Your task to perform on an android device: Open the calendar app, open the side menu, and click the "Day" option Image 0: 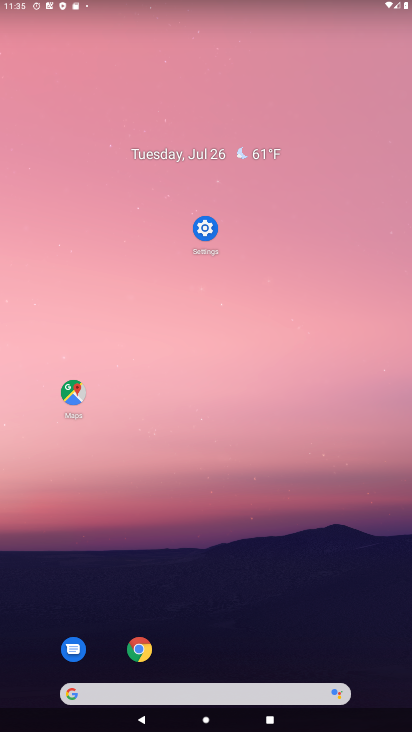
Step 0: drag from (248, 566) to (257, 49)
Your task to perform on an android device: Open the calendar app, open the side menu, and click the "Day" option Image 1: 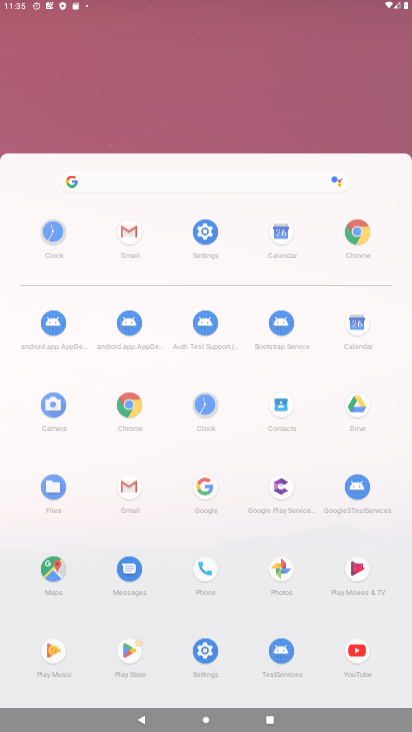
Step 1: drag from (275, 591) to (273, 116)
Your task to perform on an android device: Open the calendar app, open the side menu, and click the "Day" option Image 2: 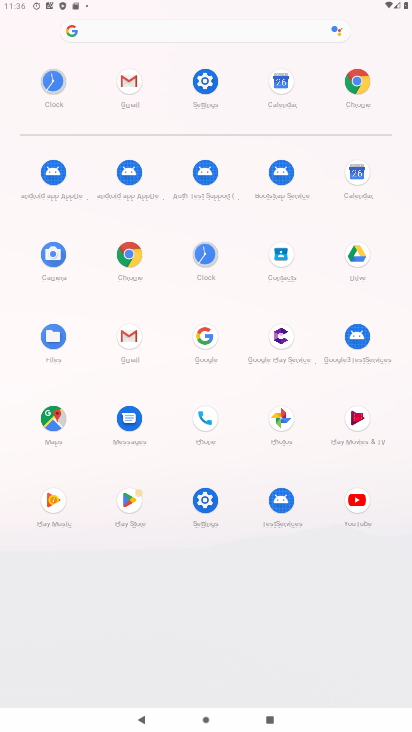
Step 2: click (356, 165)
Your task to perform on an android device: Open the calendar app, open the side menu, and click the "Day" option Image 3: 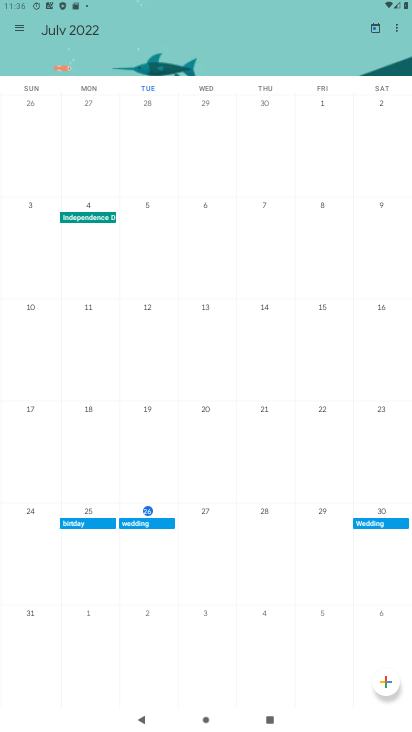
Step 3: click (21, 39)
Your task to perform on an android device: Open the calendar app, open the side menu, and click the "Day" option Image 4: 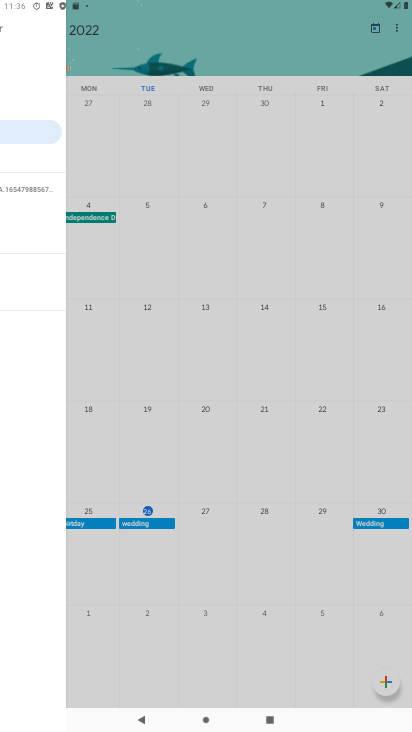
Step 4: click (21, 38)
Your task to perform on an android device: Open the calendar app, open the side menu, and click the "Day" option Image 5: 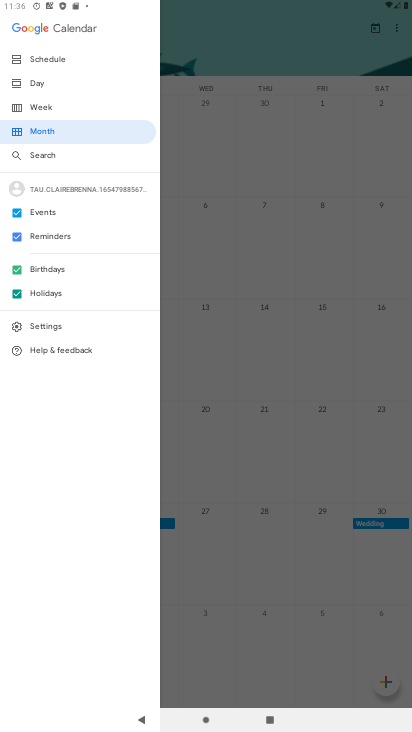
Step 5: click (41, 80)
Your task to perform on an android device: Open the calendar app, open the side menu, and click the "Day" option Image 6: 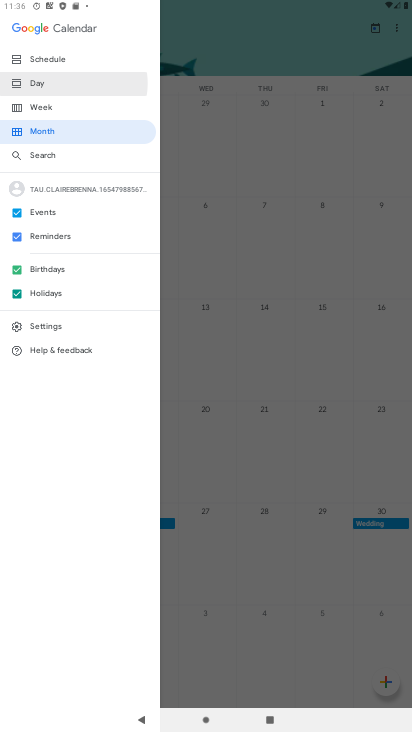
Step 6: click (39, 81)
Your task to perform on an android device: Open the calendar app, open the side menu, and click the "Day" option Image 7: 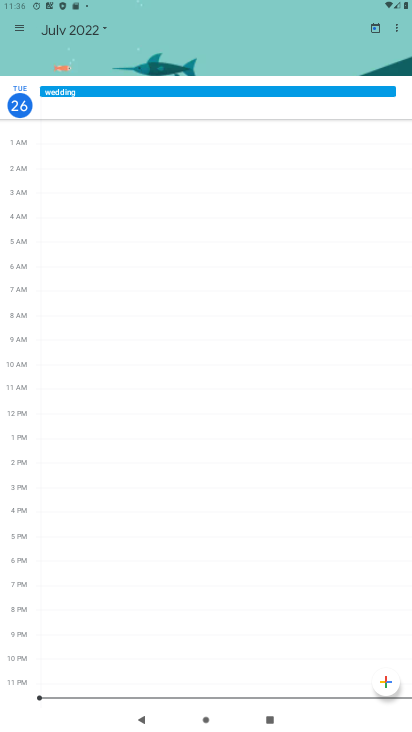
Step 7: task complete